Your task to perform on an android device: install app "Calculator" Image 0: 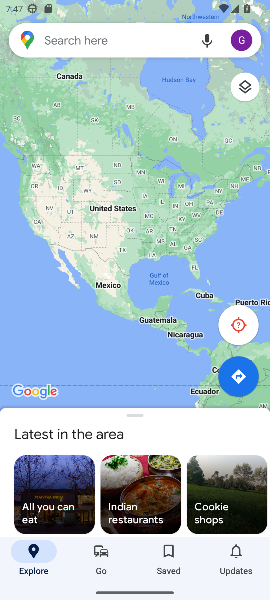
Step 0: press home button
Your task to perform on an android device: install app "Calculator" Image 1: 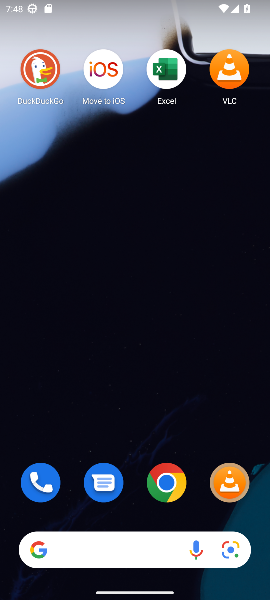
Step 1: drag from (88, 389) to (245, 447)
Your task to perform on an android device: install app "Calculator" Image 2: 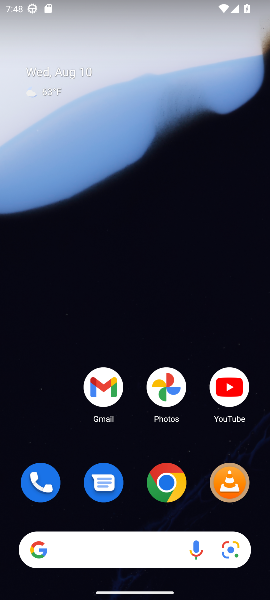
Step 2: drag from (143, 504) to (184, 172)
Your task to perform on an android device: install app "Calculator" Image 3: 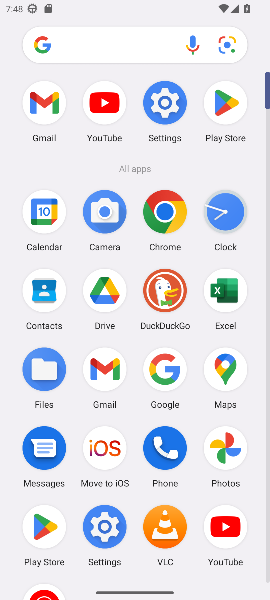
Step 3: click (213, 113)
Your task to perform on an android device: install app "Calculator" Image 4: 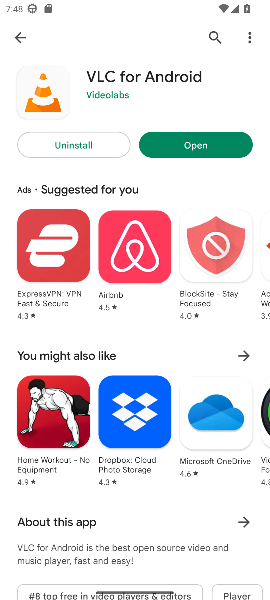
Step 4: click (23, 39)
Your task to perform on an android device: install app "Calculator" Image 5: 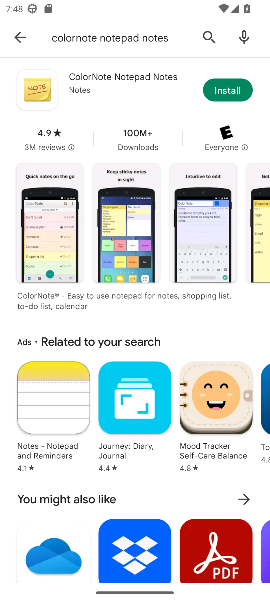
Step 5: click (118, 41)
Your task to perform on an android device: install app "Calculator" Image 6: 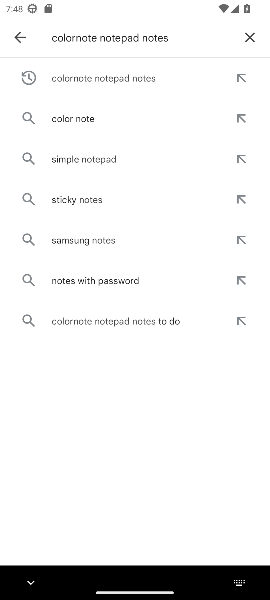
Step 6: click (247, 28)
Your task to perform on an android device: install app "Calculator" Image 7: 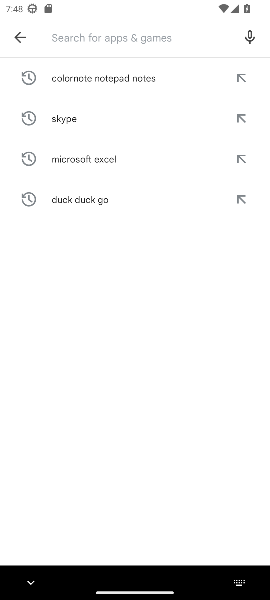
Step 7: type "cal;"
Your task to perform on an android device: install app "Calculator" Image 8: 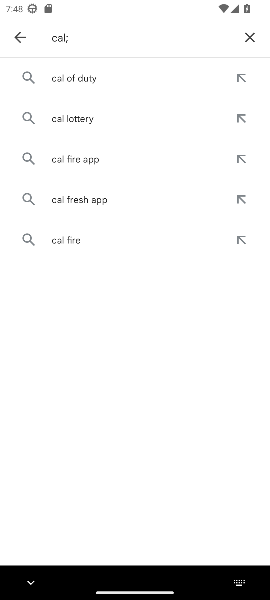
Step 8: click (250, 40)
Your task to perform on an android device: install app "Calculator" Image 9: 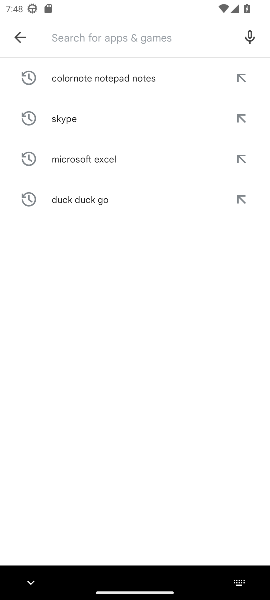
Step 9: type "calculator"
Your task to perform on an android device: install app "Calculator" Image 10: 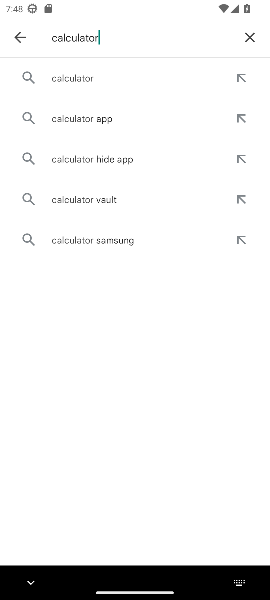
Step 10: click (85, 77)
Your task to perform on an android device: install app "Calculator" Image 11: 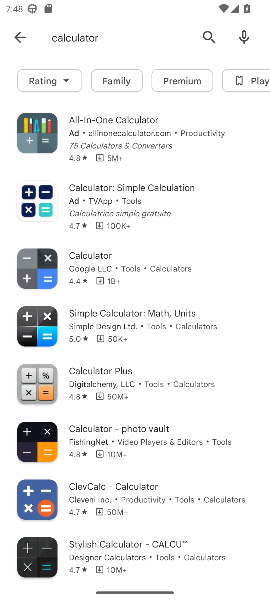
Step 11: click (93, 266)
Your task to perform on an android device: install app "Calculator" Image 12: 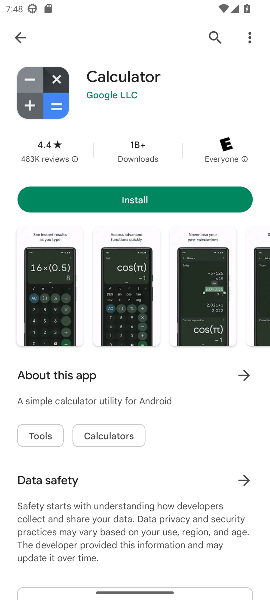
Step 12: click (152, 193)
Your task to perform on an android device: install app "Calculator" Image 13: 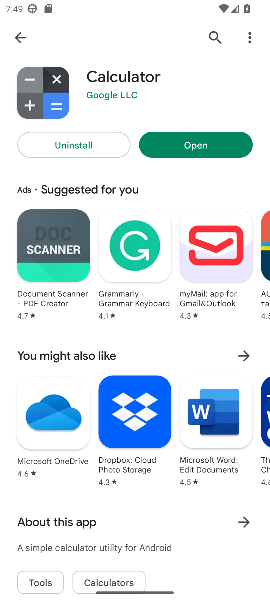
Step 13: task complete